Your task to perform on an android device: delete a single message in the gmail app Image 0: 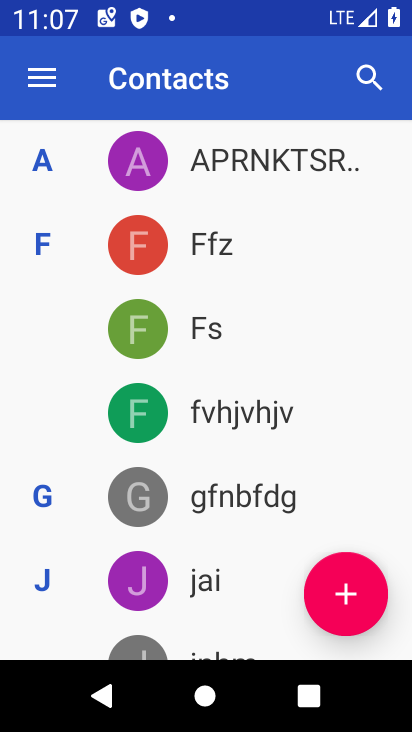
Step 0: press back button
Your task to perform on an android device: delete a single message in the gmail app Image 1: 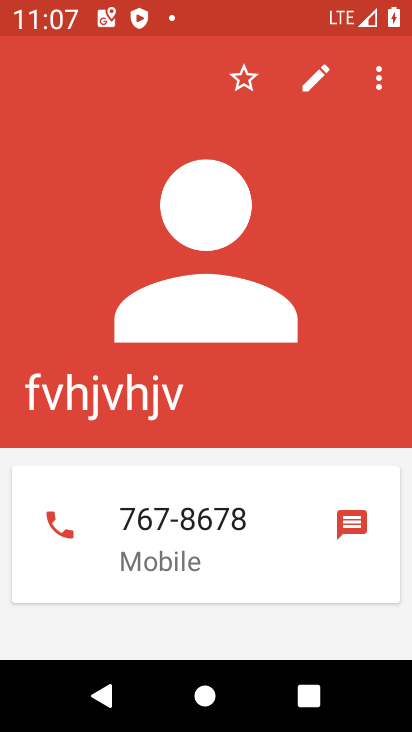
Step 1: press back button
Your task to perform on an android device: delete a single message in the gmail app Image 2: 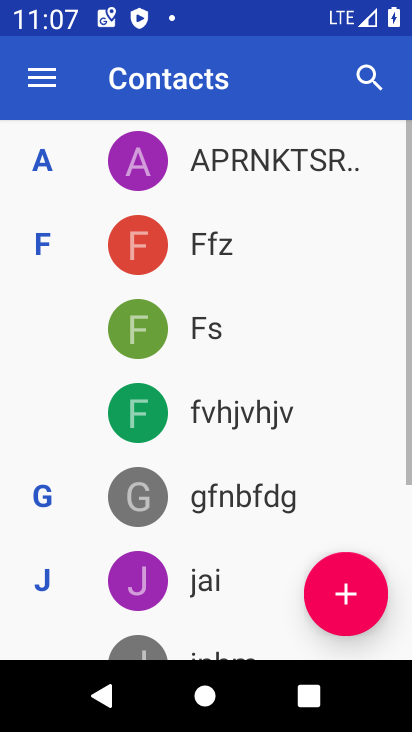
Step 2: press back button
Your task to perform on an android device: delete a single message in the gmail app Image 3: 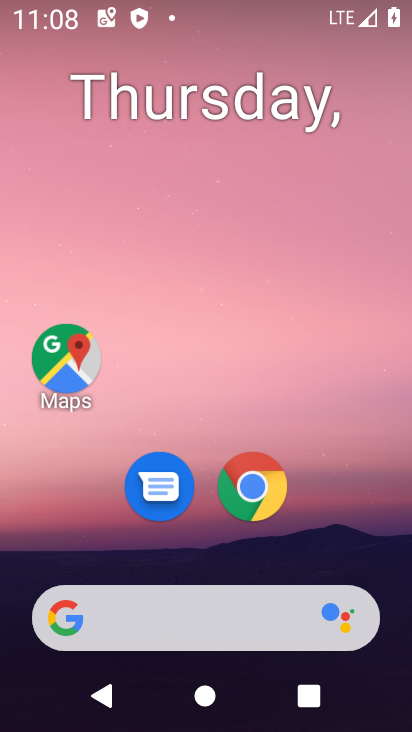
Step 3: drag from (221, 561) to (316, 0)
Your task to perform on an android device: delete a single message in the gmail app Image 4: 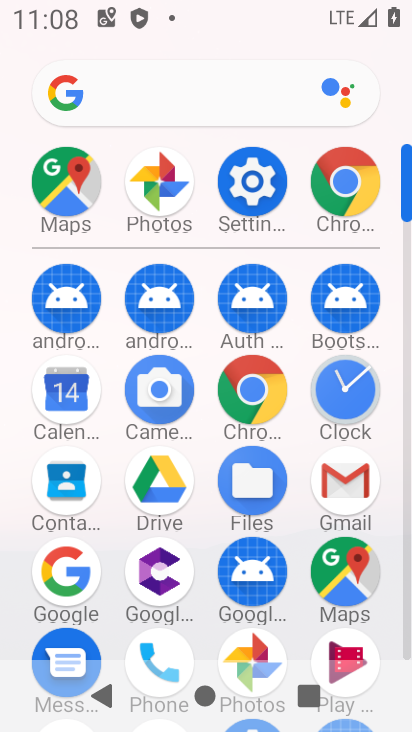
Step 4: click (343, 490)
Your task to perform on an android device: delete a single message in the gmail app Image 5: 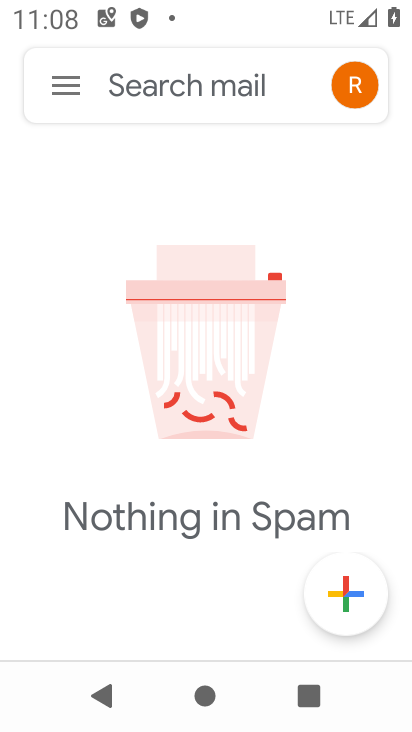
Step 5: click (66, 84)
Your task to perform on an android device: delete a single message in the gmail app Image 6: 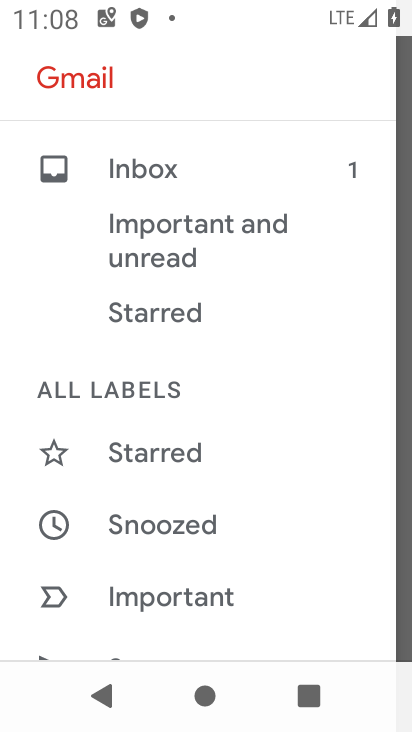
Step 6: drag from (147, 577) to (206, 37)
Your task to perform on an android device: delete a single message in the gmail app Image 7: 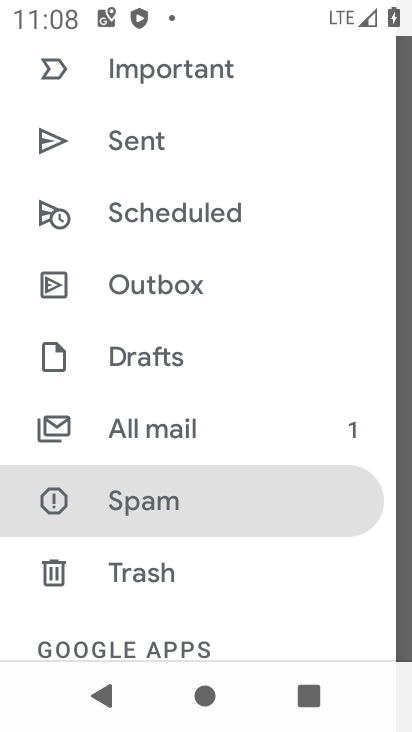
Step 7: drag from (178, 577) to (244, 107)
Your task to perform on an android device: delete a single message in the gmail app Image 8: 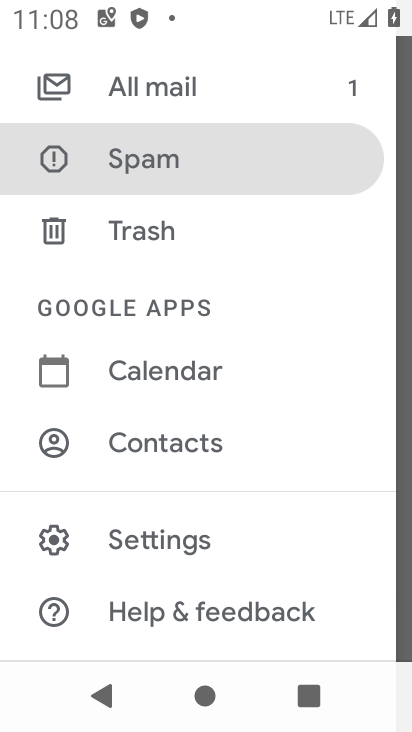
Step 8: click (194, 80)
Your task to perform on an android device: delete a single message in the gmail app Image 9: 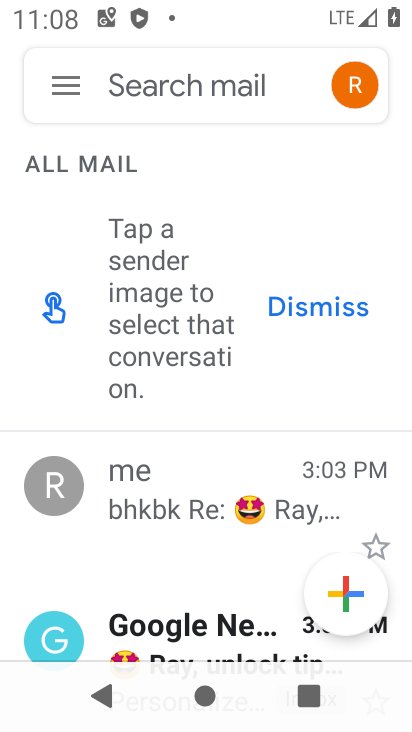
Step 9: drag from (209, 565) to (277, 228)
Your task to perform on an android device: delete a single message in the gmail app Image 10: 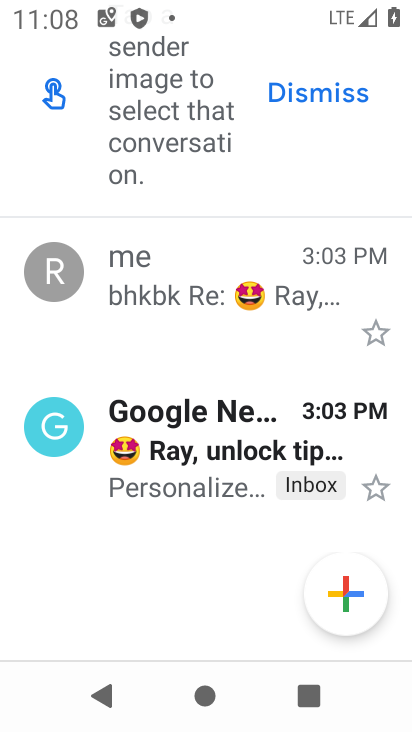
Step 10: click (165, 270)
Your task to perform on an android device: delete a single message in the gmail app Image 11: 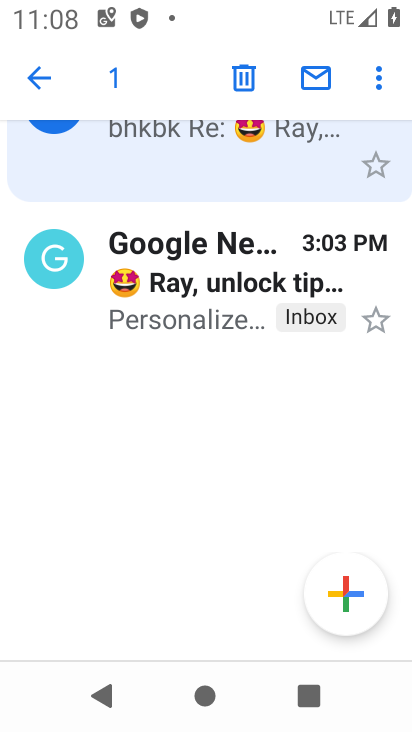
Step 11: click (253, 75)
Your task to perform on an android device: delete a single message in the gmail app Image 12: 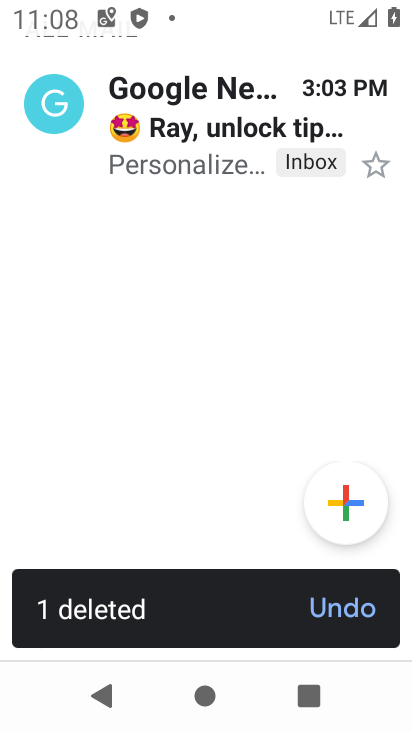
Step 12: task complete